Your task to perform on an android device: turn pop-ups off in chrome Image 0: 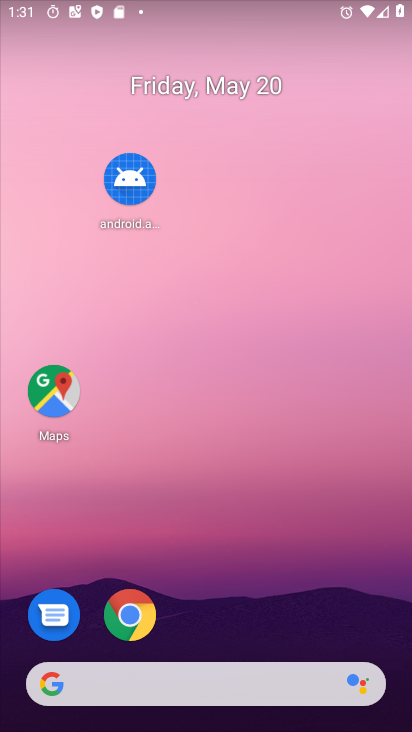
Step 0: click (132, 613)
Your task to perform on an android device: turn pop-ups off in chrome Image 1: 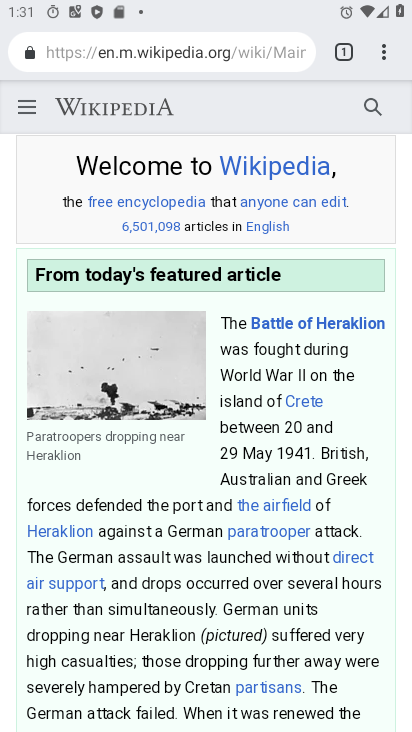
Step 1: click (383, 57)
Your task to perform on an android device: turn pop-ups off in chrome Image 2: 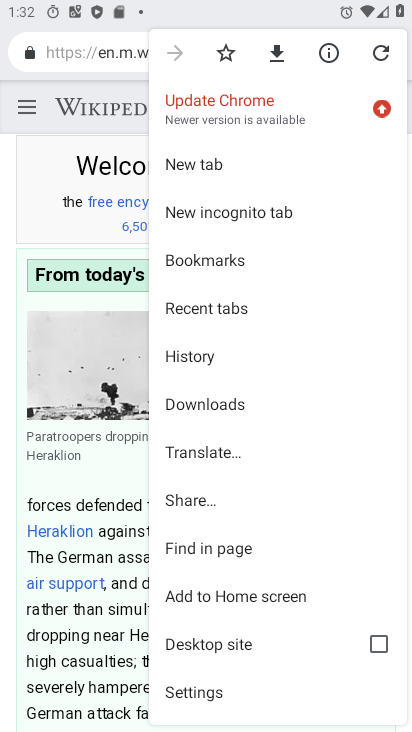
Step 2: click (212, 691)
Your task to perform on an android device: turn pop-ups off in chrome Image 3: 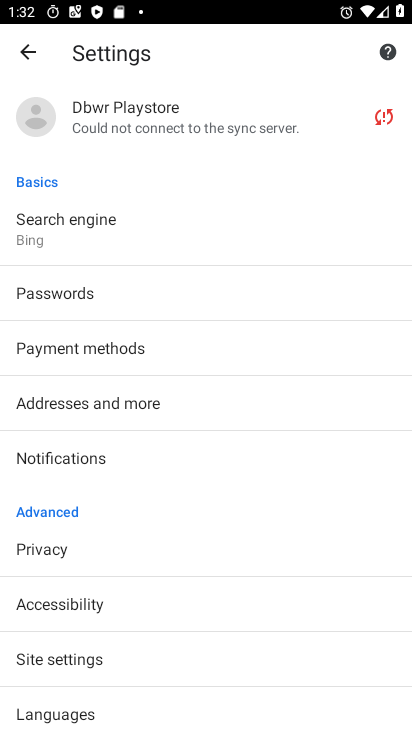
Step 3: click (57, 665)
Your task to perform on an android device: turn pop-ups off in chrome Image 4: 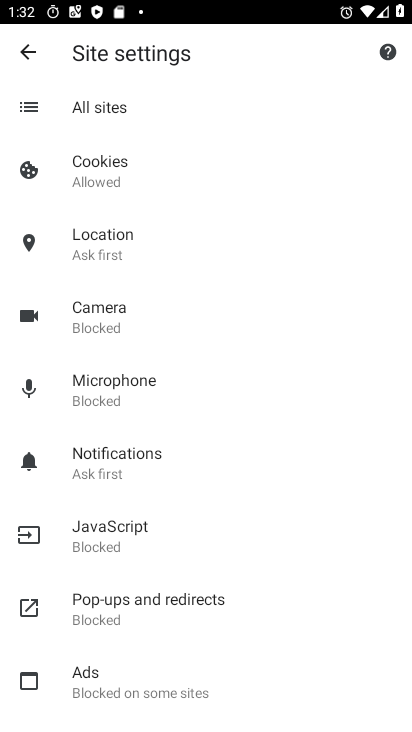
Step 4: click (192, 604)
Your task to perform on an android device: turn pop-ups off in chrome Image 5: 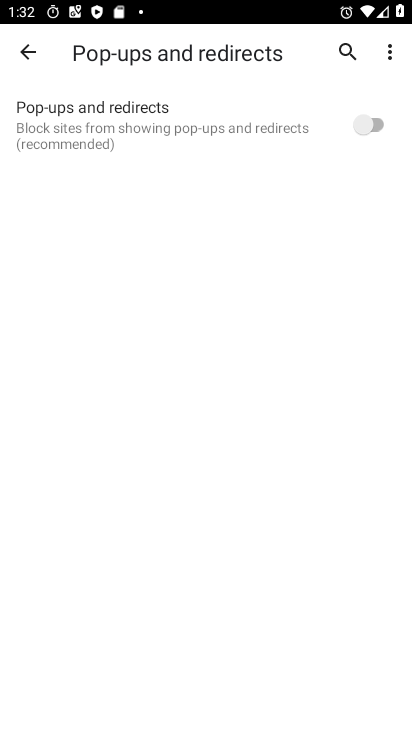
Step 5: task complete